Your task to perform on an android device: Toggle the flashlight Image 0: 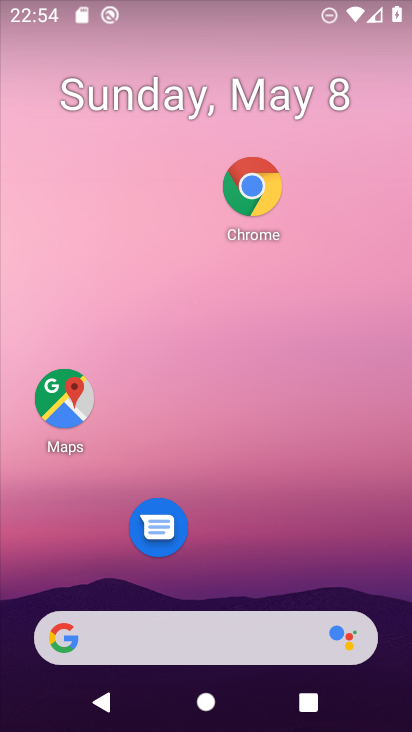
Step 0: drag from (338, 452) to (315, 292)
Your task to perform on an android device: Toggle the flashlight Image 1: 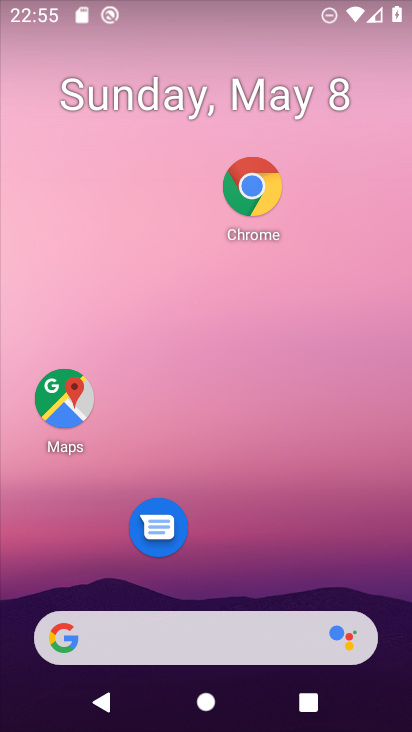
Step 1: drag from (269, 588) to (295, 232)
Your task to perform on an android device: Toggle the flashlight Image 2: 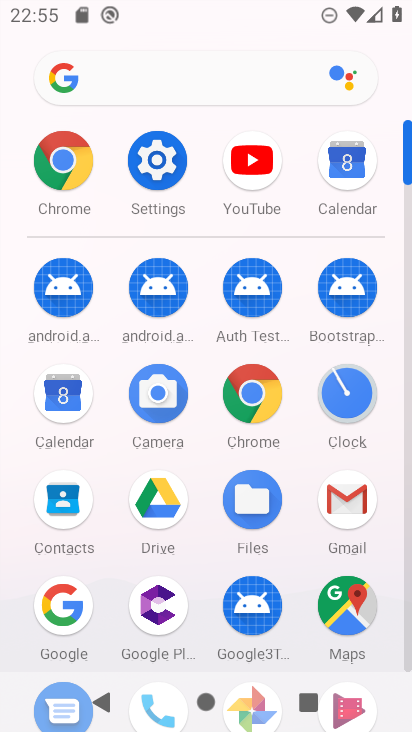
Step 2: click (147, 162)
Your task to perform on an android device: Toggle the flashlight Image 3: 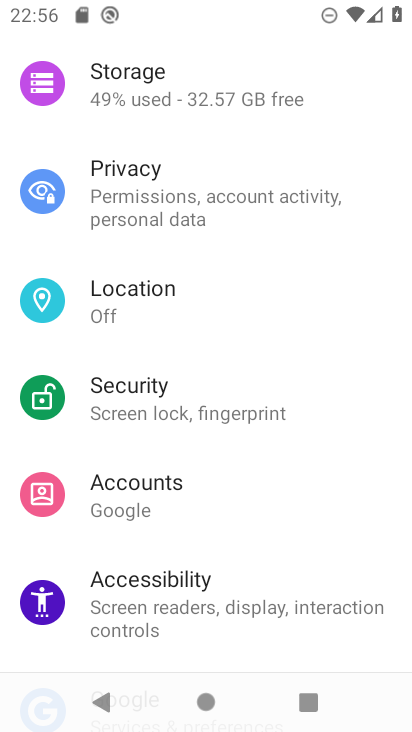
Step 3: task complete